Your task to perform on an android device: Go to location settings Image 0: 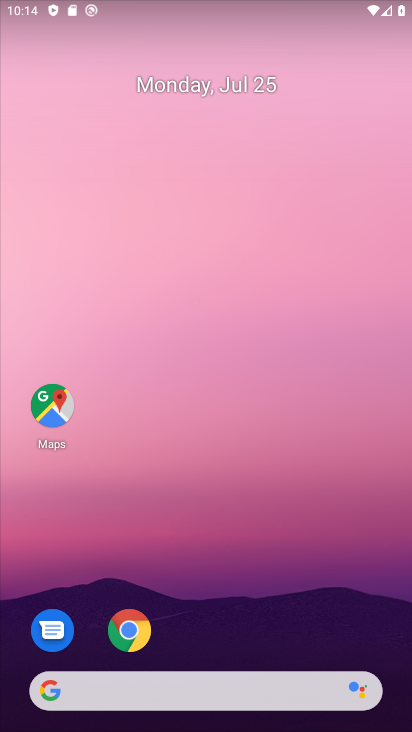
Step 0: drag from (288, 581) to (298, 71)
Your task to perform on an android device: Go to location settings Image 1: 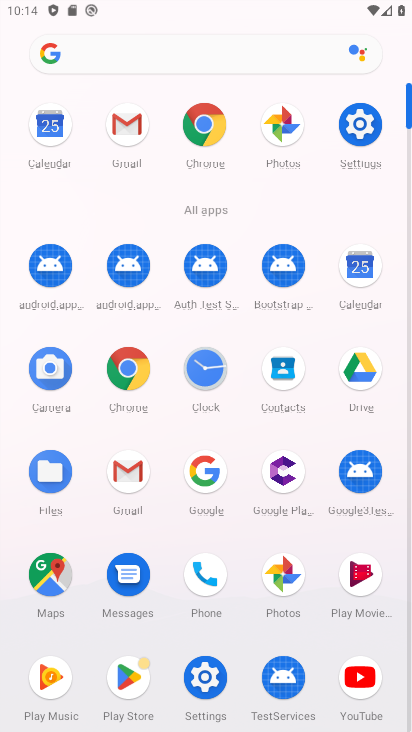
Step 1: click (358, 122)
Your task to perform on an android device: Go to location settings Image 2: 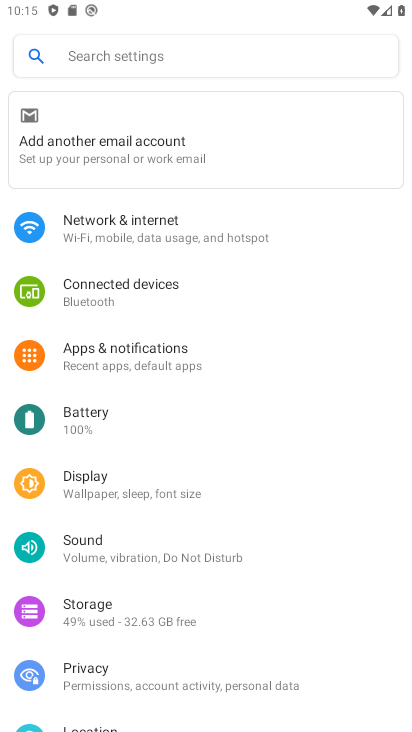
Step 2: drag from (272, 646) to (232, 327)
Your task to perform on an android device: Go to location settings Image 3: 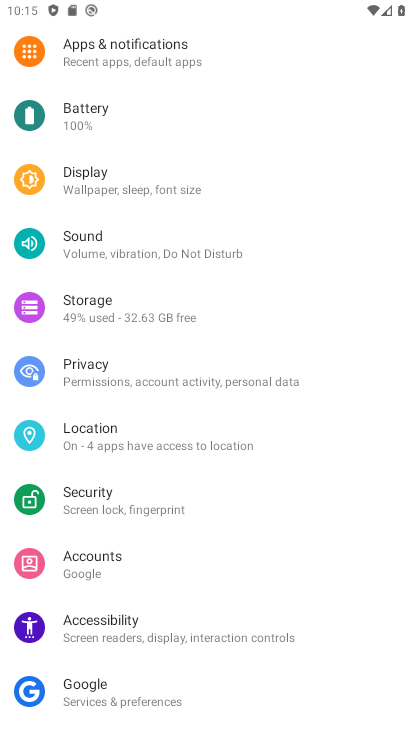
Step 3: click (127, 441)
Your task to perform on an android device: Go to location settings Image 4: 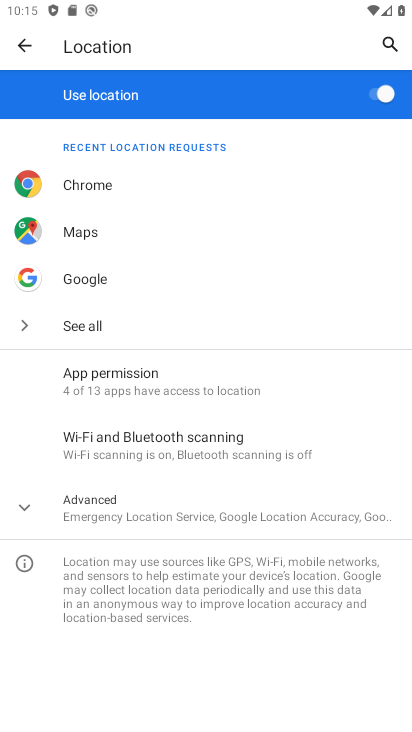
Step 4: task complete